Your task to perform on an android device: Go to privacy settings Image 0: 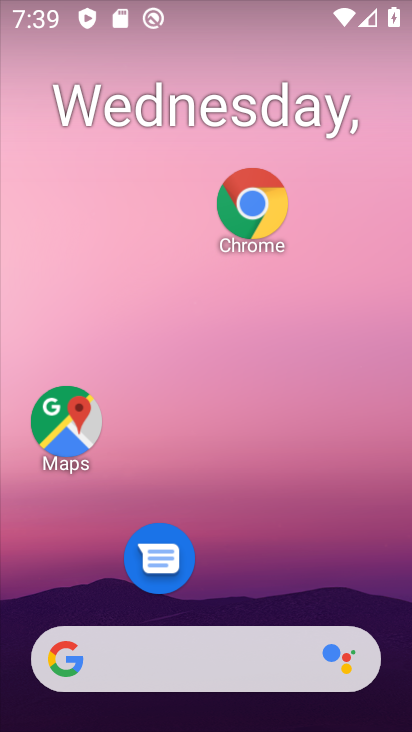
Step 0: drag from (226, 577) to (228, 82)
Your task to perform on an android device: Go to privacy settings Image 1: 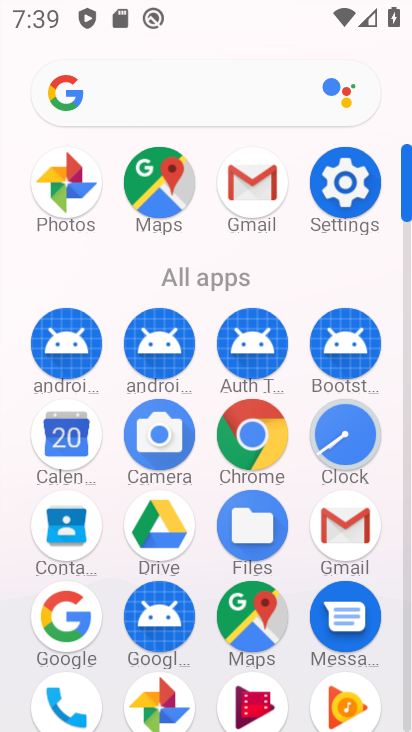
Step 1: click (348, 176)
Your task to perform on an android device: Go to privacy settings Image 2: 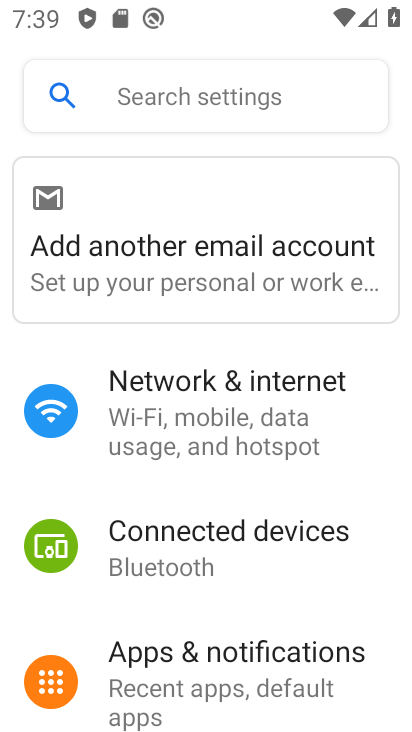
Step 2: drag from (213, 634) to (231, 131)
Your task to perform on an android device: Go to privacy settings Image 3: 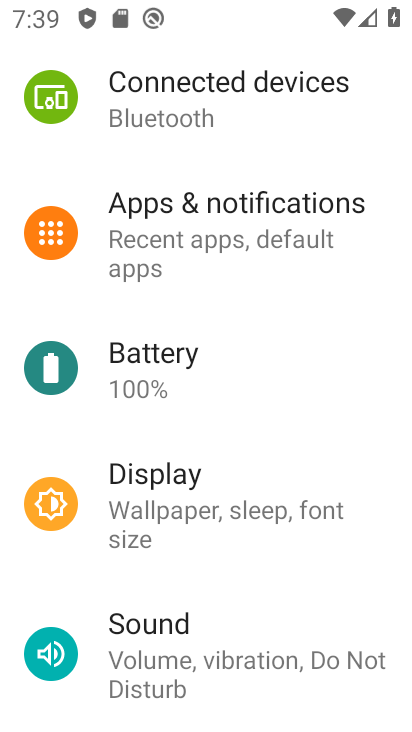
Step 3: drag from (232, 648) to (255, 132)
Your task to perform on an android device: Go to privacy settings Image 4: 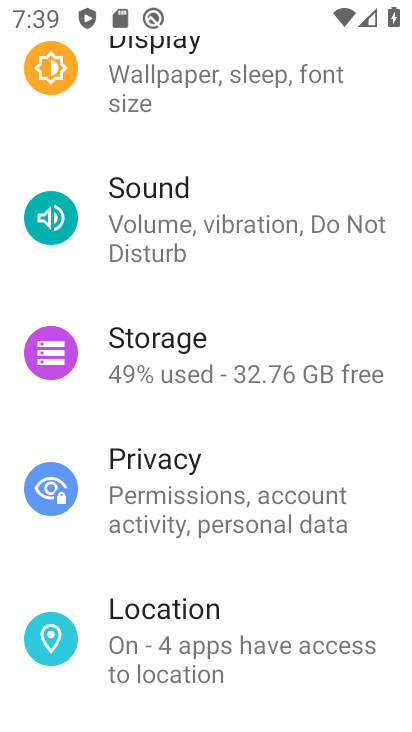
Step 4: click (230, 471)
Your task to perform on an android device: Go to privacy settings Image 5: 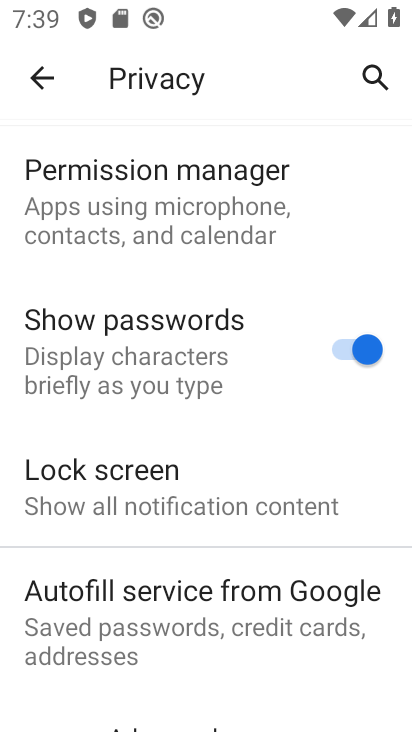
Step 5: drag from (231, 610) to (228, 183)
Your task to perform on an android device: Go to privacy settings Image 6: 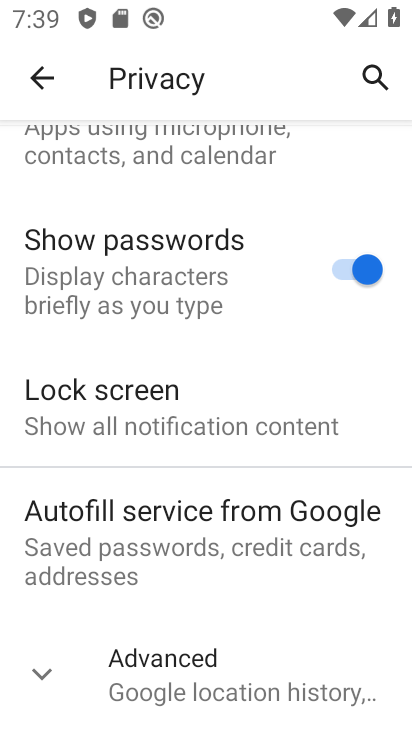
Step 6: click (40, 665)
Your task to perform on an android device: Go to privacy settings Image 7: 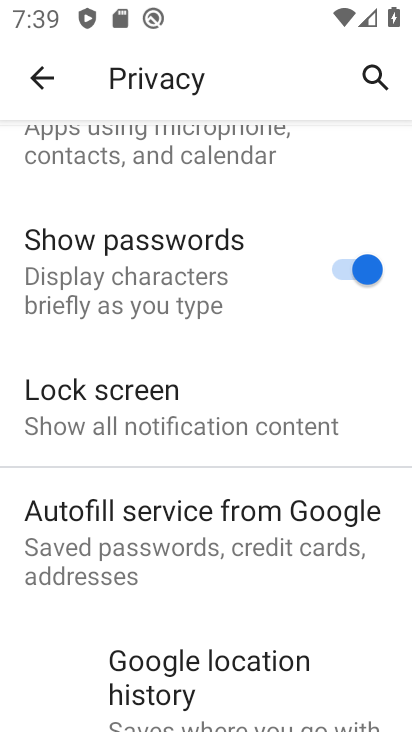
Step 7: task complete